Your task to perform on an android device: change text size in settings app Image 0: 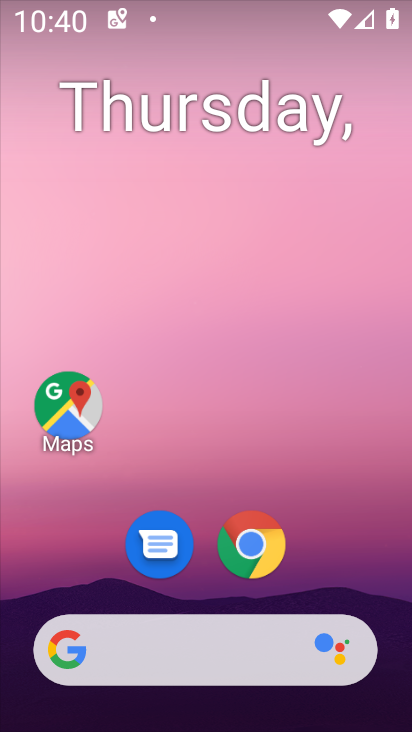
Step 0: drag from (321, 464) to (259, 49)
Your task to perform on an android device: change text size in settings app Image 1: 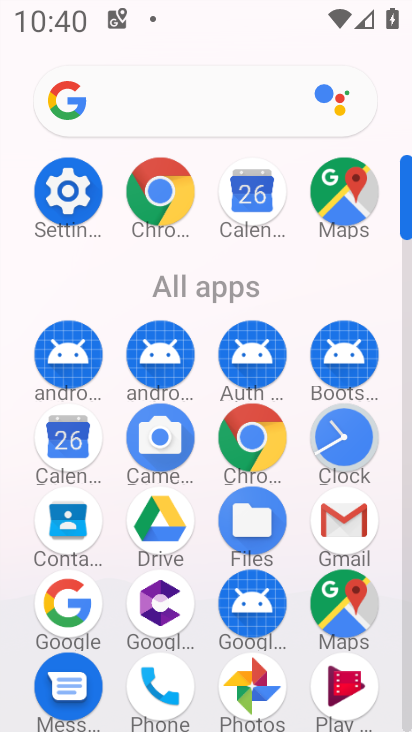
Step 1: drag from (29, 551) to (14, 209)
Your task to perform on an android device: change text size in settings app Image 2: 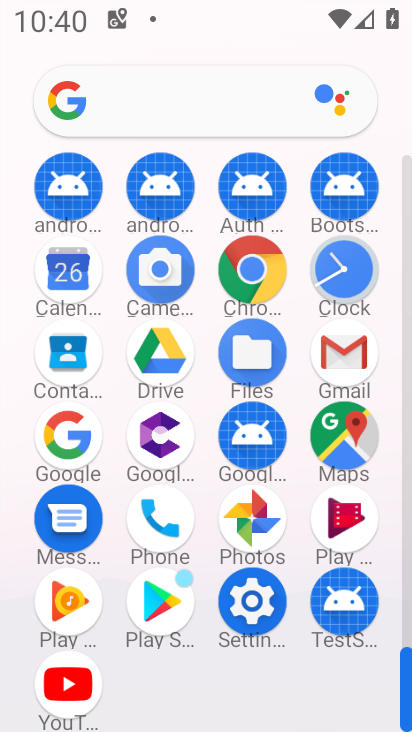
Step 2: click (255, 600)
Your task to perform on an android device: change text size in settings app Image 3: 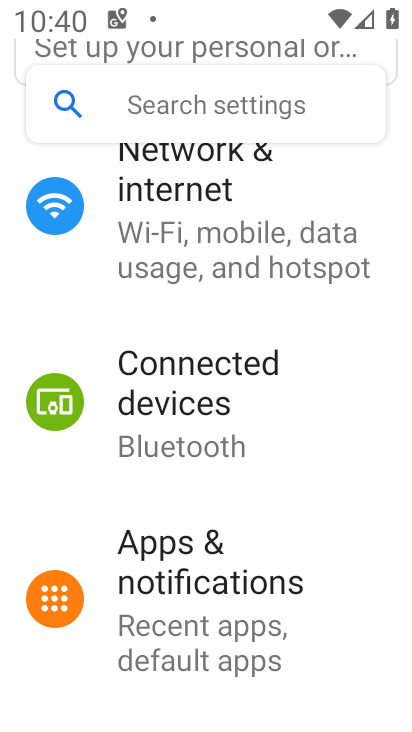
Step 3: drag from (308, 614) to (311, 247)
Your task to perform on an android device: change text size in settings app Image 4: 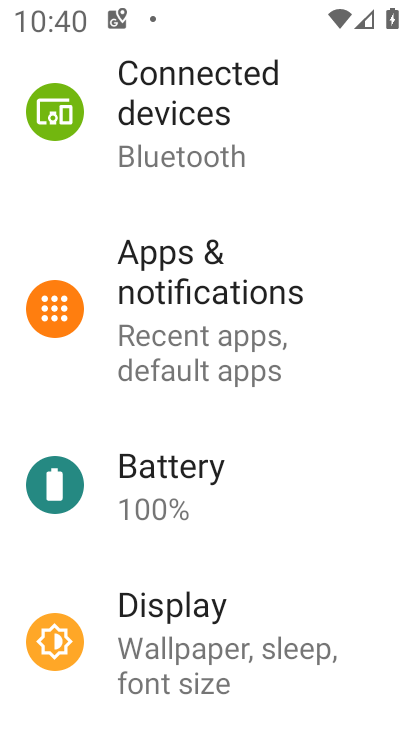
Step 4: click (226, 604)
Your task to perform on an android device: change text size in settings app Image 5: 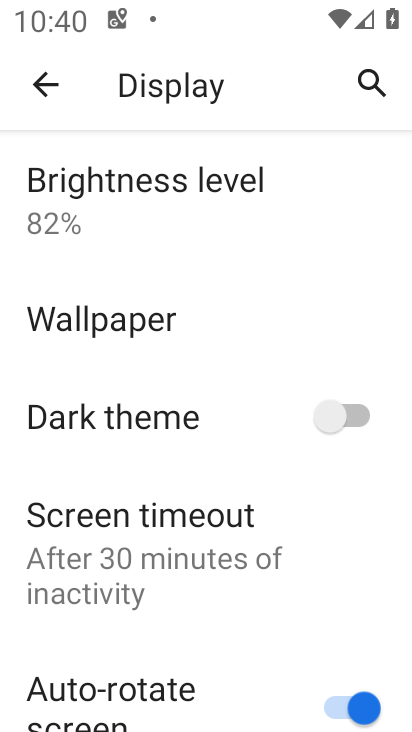
Step 5: drag from (211, 586) to (236, 124)
Your task to perform on an android device: change text size in settings app Image 6: 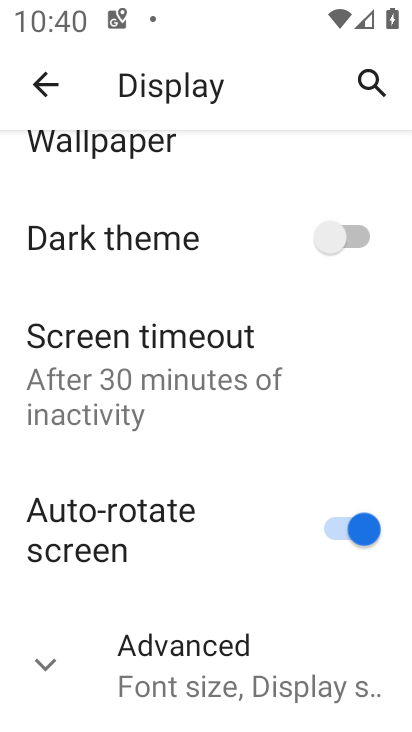
Step 6: click (89, 646)
Your task to perform on an android device: change text size in settings app Image 7: 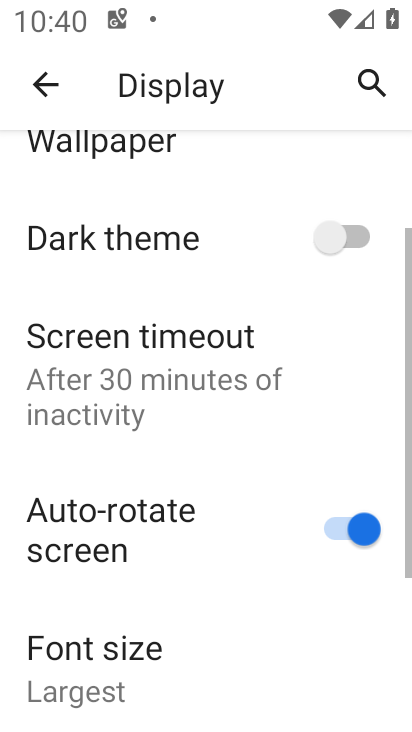
Step 7: drag from (262, 583) to (251, 204)
Your task to perform on an android device: change text size in settings app Image 8: 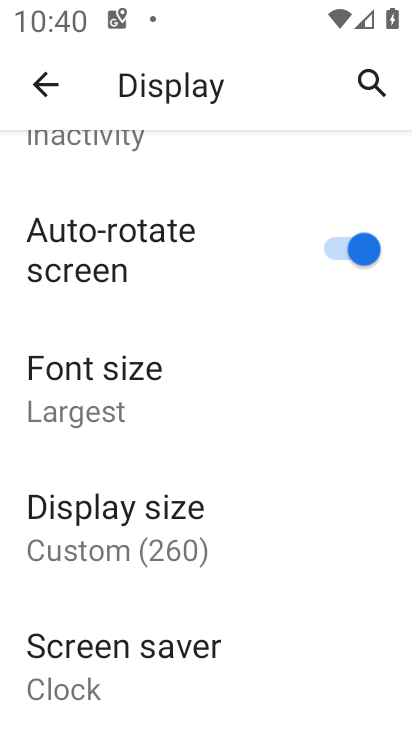
Step 8: click (124, 398)
Your task to perform on an android device: change text size in settings app Image 9: 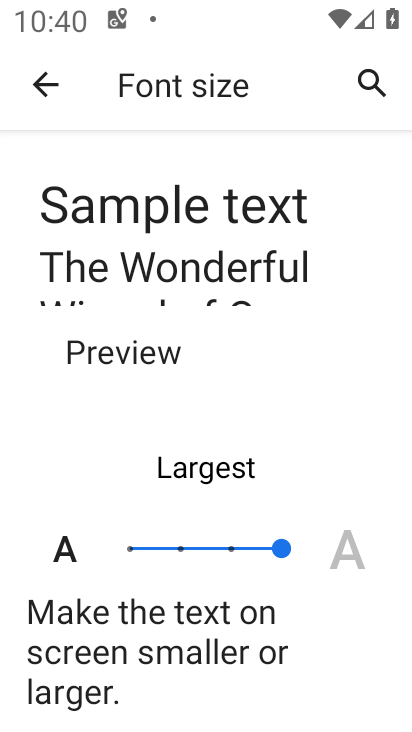
Step 9: click (232, 542)
Your task to perform on an android device: change text size in settings app Image 10: 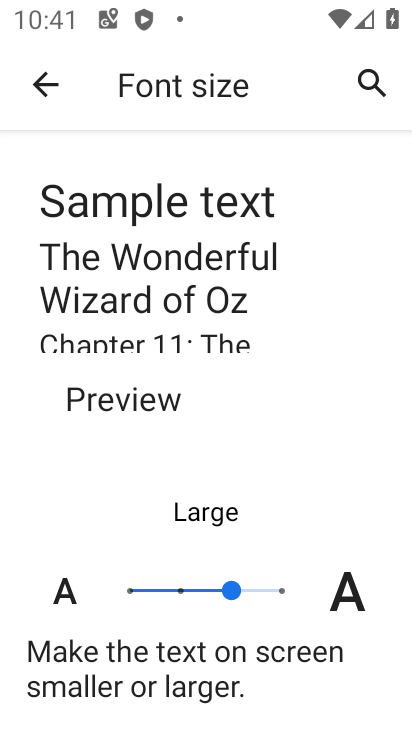
Step 10: task complete